Your task to perform on an android device: Open accessibility settings Image 0: 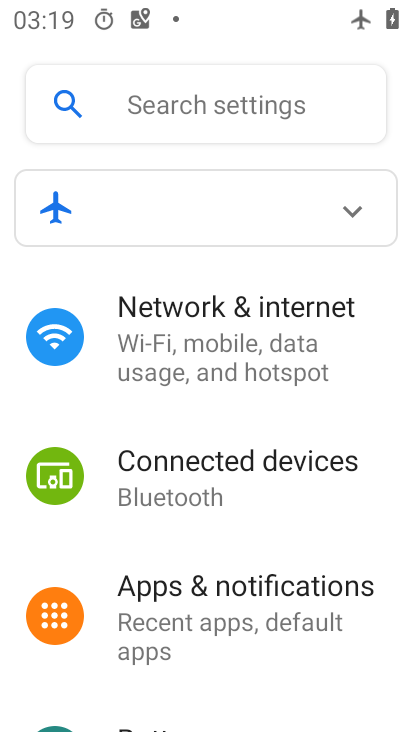
Step 0: drag from (282, 678) to (285, 258)
Your task to perform on an android device: Open accessibility settings Image 1: 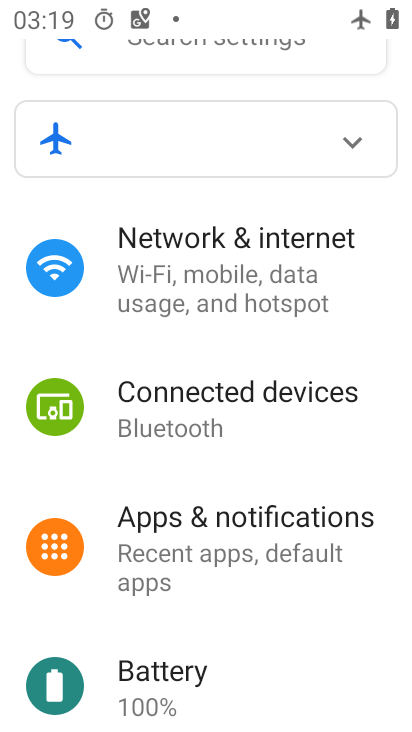
Step 1: drag from (250, 671) to (249, 425)
Your task to perform on an android device: Open accessibility settings Image 2: 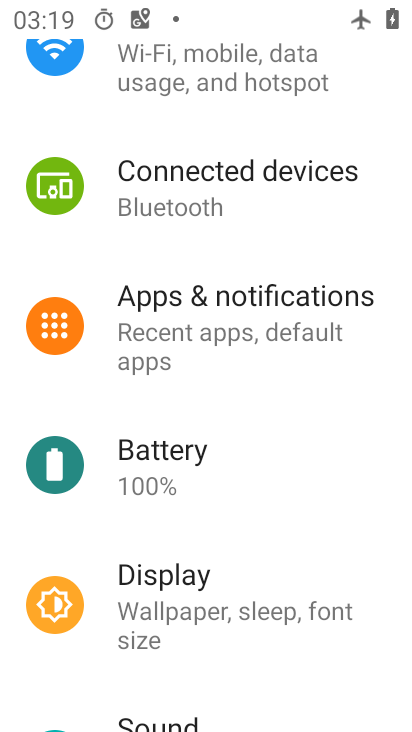
Step 2: drag from (222, 697) to (221, 202)
Your task to perform on an android device: Open accessibility settings Image 3: 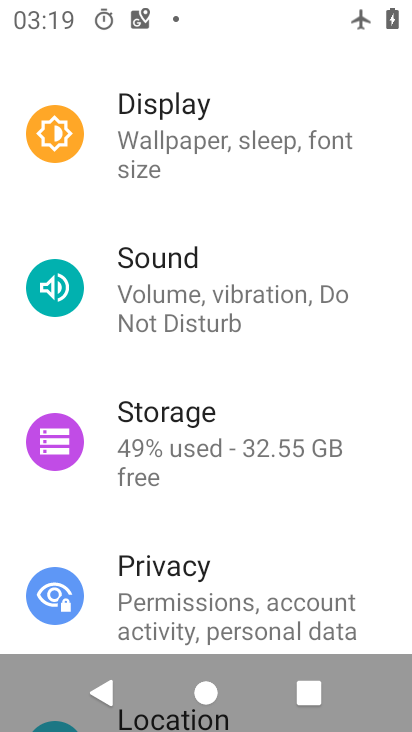
Step 3: drag from (229, 503) to (228, 314)
Your task to perform on an android device: Open accessibility settings Image 4: 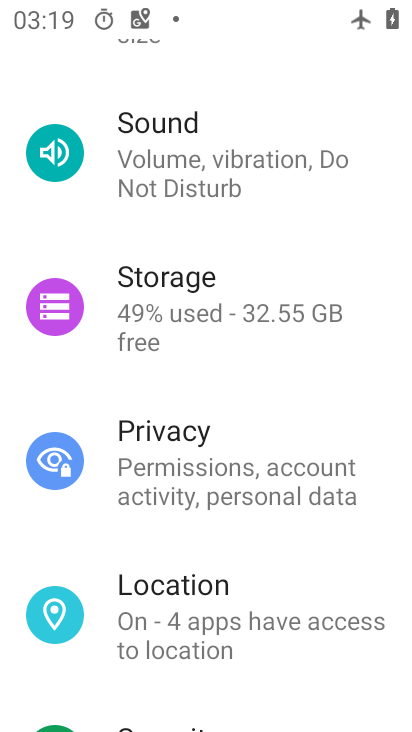
Step 4: drag from (187, 663) to (189, 198)
Your task to perform on an android device: Open accessibility settings Image 5: 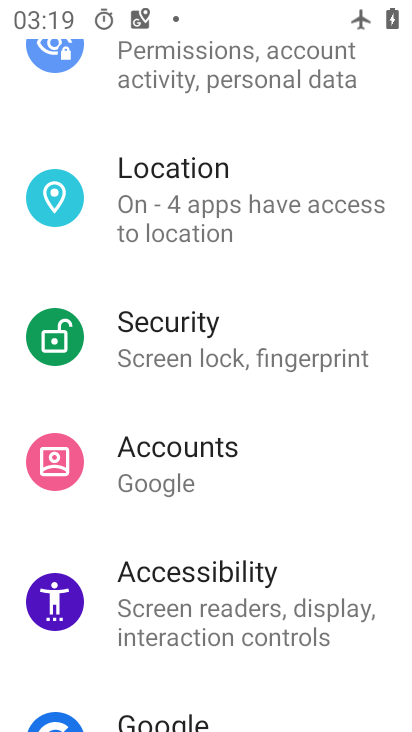
Step 5: click (190, 600)
Your task to perform on an android device: Open accessibility settings Image 6: 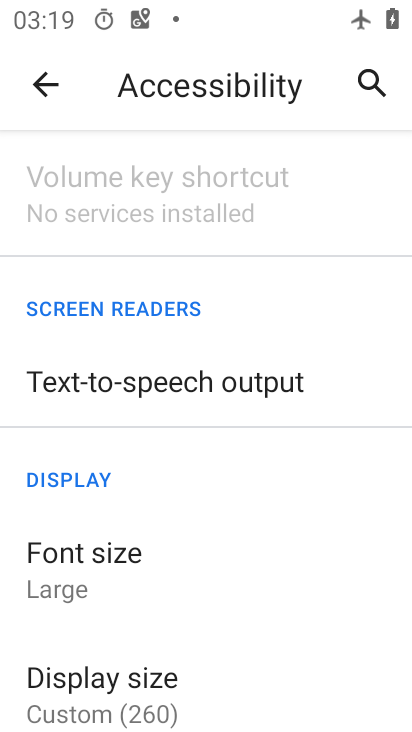
Step 6: task complete